Your task to perform on an android device: Is it going to rain tomorrow? Image 0: 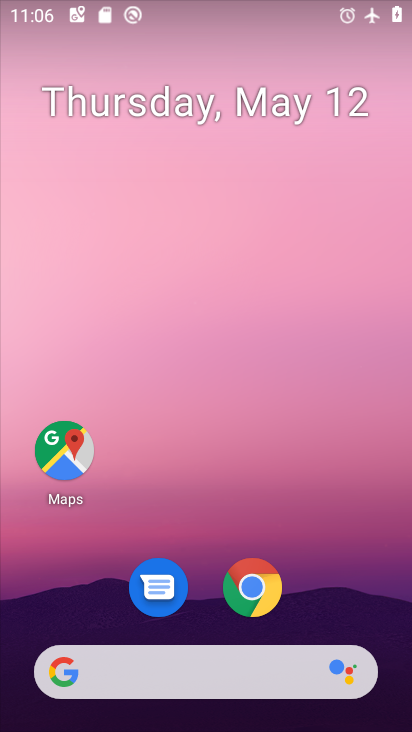
Step 0: click (206, 655)
Your task to perform on an android device: Is it going to rain tomorrow? Image 1: 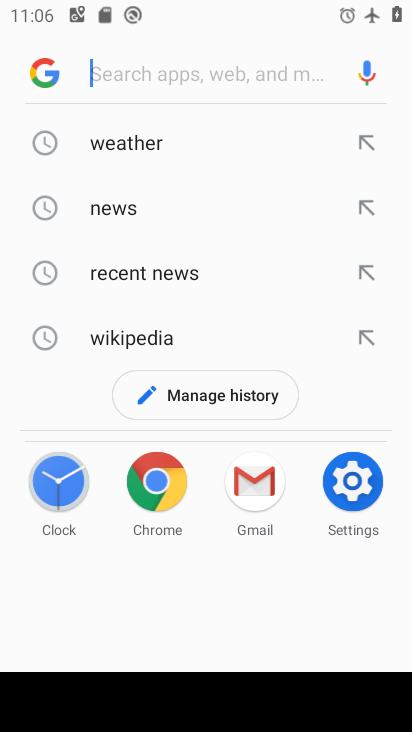
Step 1: type "Rain tomorror"
Your task to perform on an android device: Is it going to rain tomorrow? Image 2: 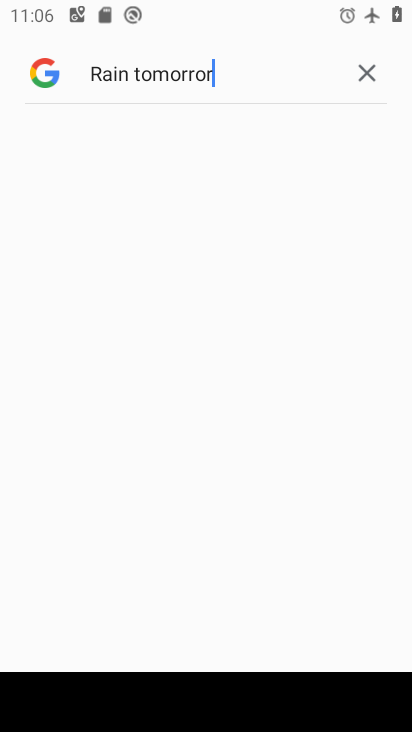
Step 2: click (385, 72)
Your task to perform on an android device: Is it going to rain tomorrow? Image 3: 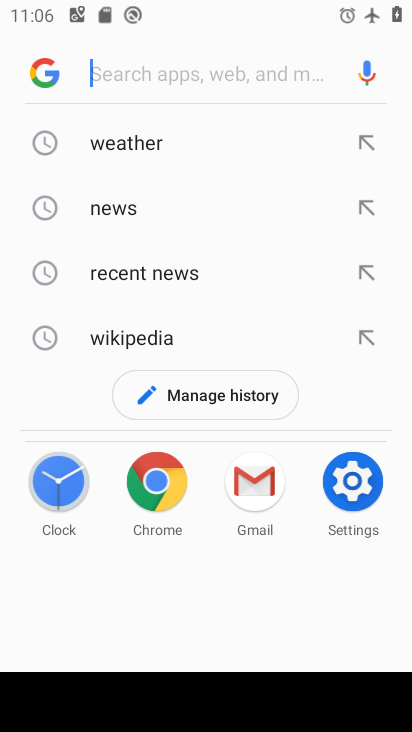
Step 3: type "going to rain tomorrow"
Your task to perform on an android device: Is it going to rain tomorrow? Image 4: 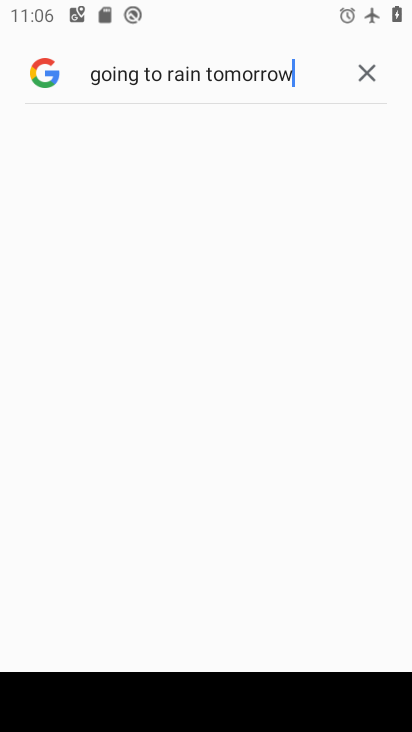
Step 4: task complete